Your task to perform on an android device: turn notification dots off Image 0: 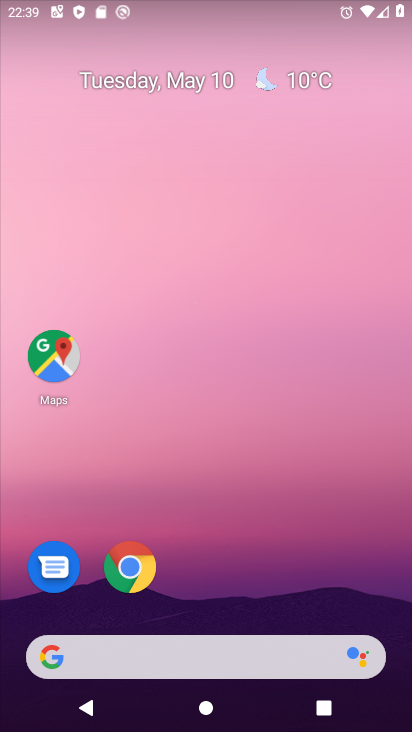
Step 0: drag from (313, 627) to (308, 66)
Your task to perform on an android device: turn notification dots off Image 1: 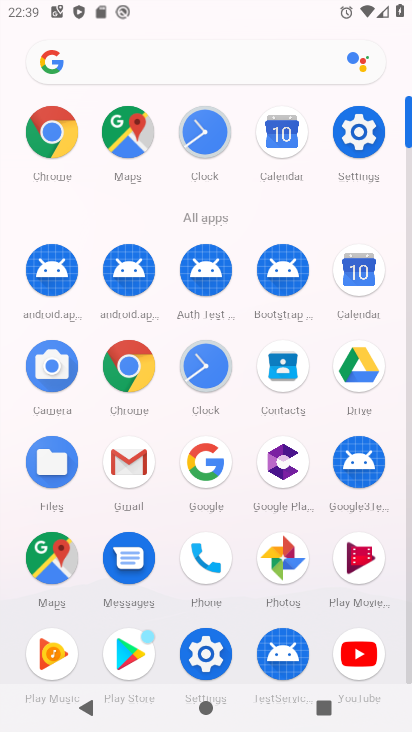
Step 1: click (348, 136)
Your task to perform on an android device: turn notification dots off Image 2: 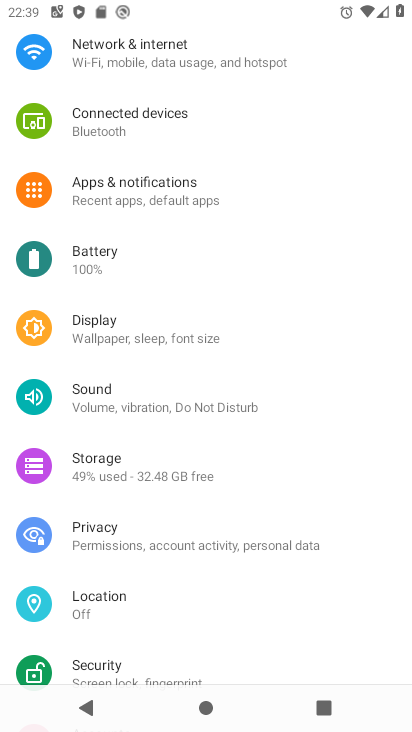
Step 2: click (161, 190)
Your task to perform on an android device: turn notification dots off Image 3: 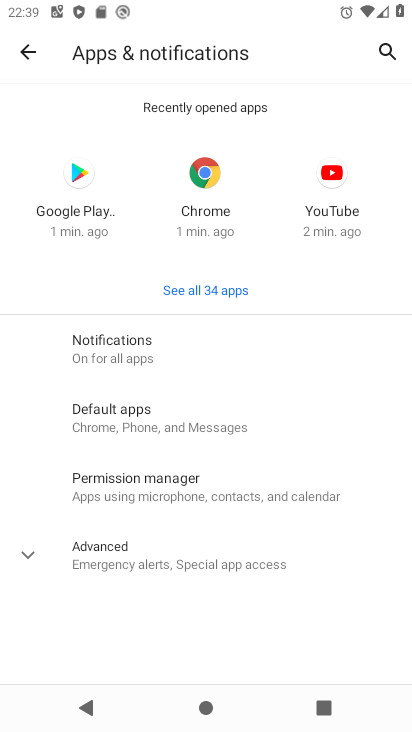
Step 3: click (96, 360)
Your task to perform on an android device: turn notification dots off Image 4: 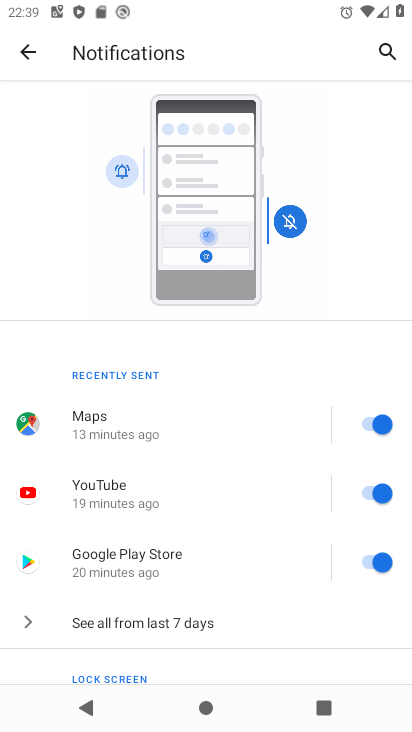
Step 4: drag from (108, 600) to (112, 248)
Your task to perform on an android device: turn notification dots off Image 5: 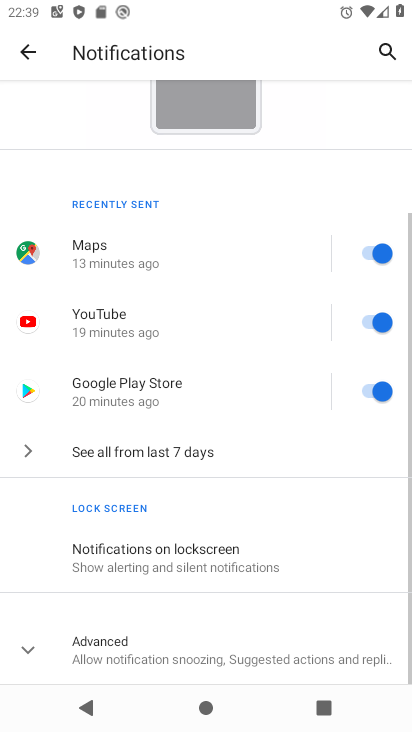
Step 5: click (30, 658)
Your task to perform on an android device: turn notification dots off Image 6: 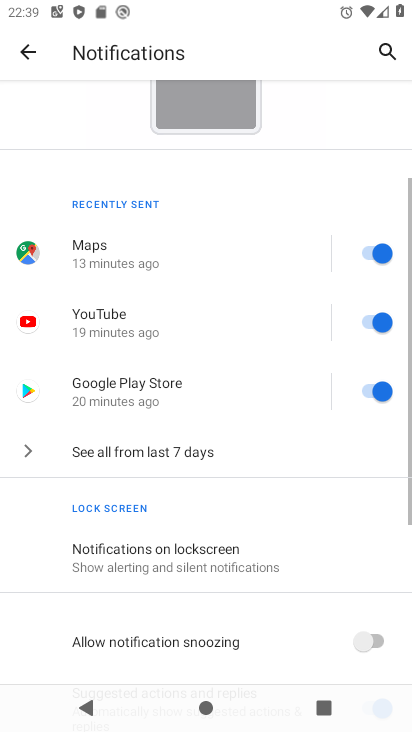
Step 6: drag from (123, 649) to (134, 300)
Your task to perform on an android device: turn notification dots off Image 7: 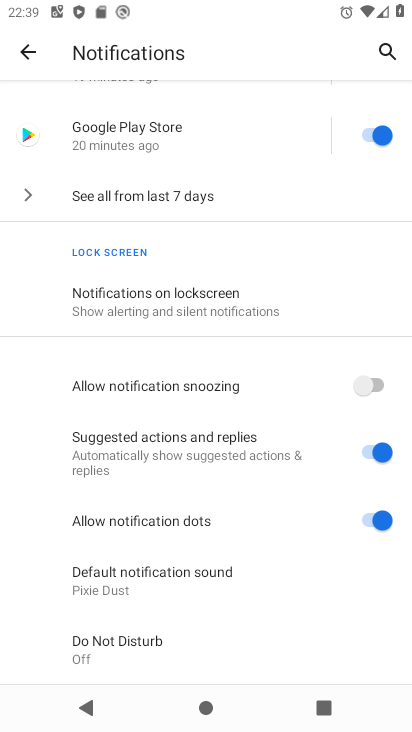
Step 7: click (389, 516)
Your task to perform on an android device: turn notification dots off Image 8: 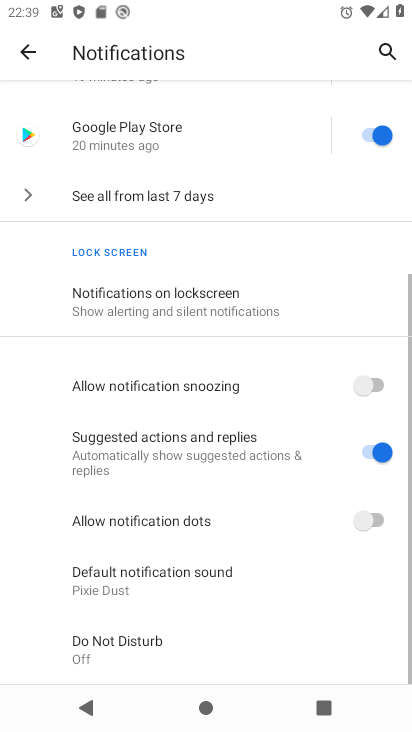
Step 8: task complete